Your task to perform on an android device: Open Chrome and go to settings Image 0: 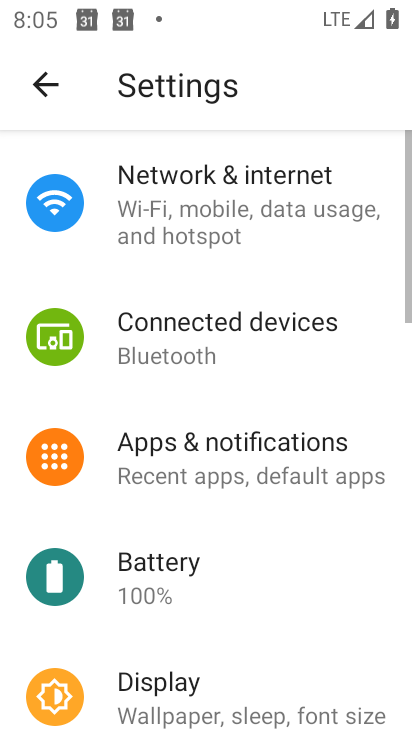
Step 0: press home button
Your task to perform on an android device: Open Chrome and go to settings Image 1: 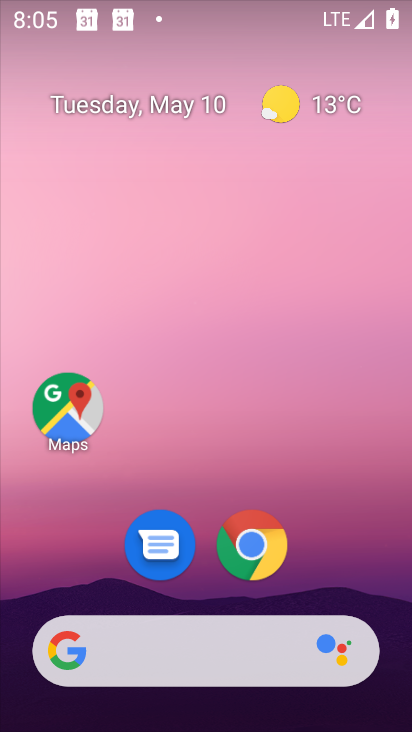
Step 1: click (251, 537)
Your task to perform on an android device: Open Chrome and go to settings Image 2: 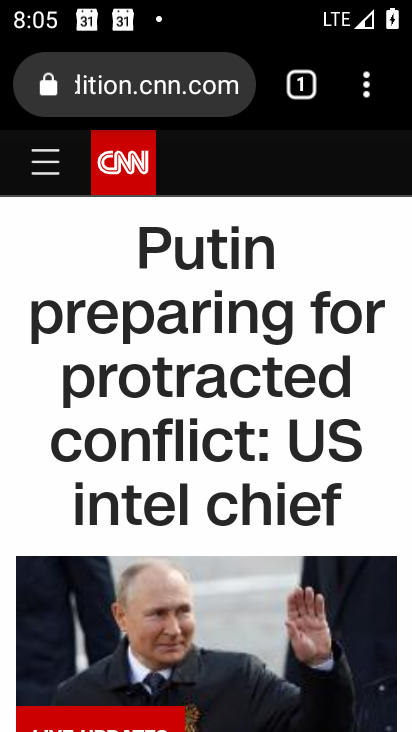
Step 2: click (371, 75)
Your task to perform on an android device: Open Chrome and go to settings Image 3: 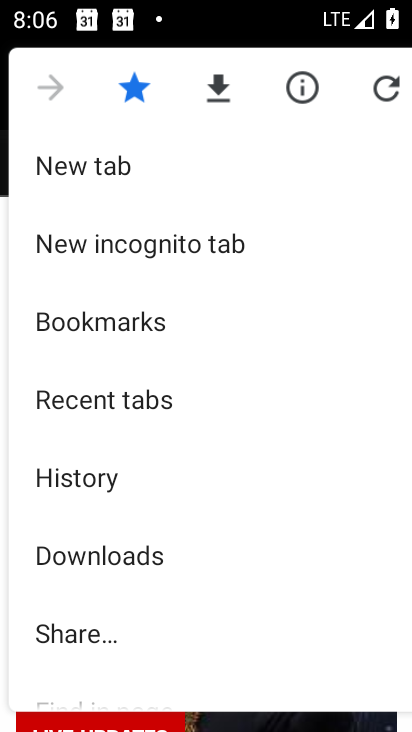
Step 3: drag from (219, 635) to (243, 122)
Your task to perform on an android device: Open Chrome and go to settings Image 4: 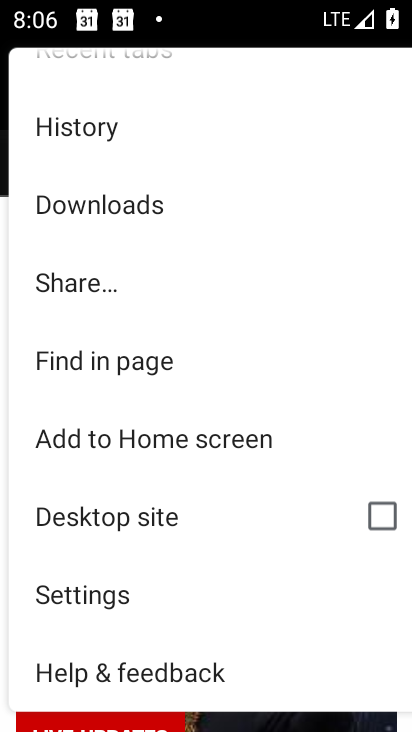
Step 4: click (137, 591)
Your task to perform on an android device: Open Chrome and go to settings Image 5: 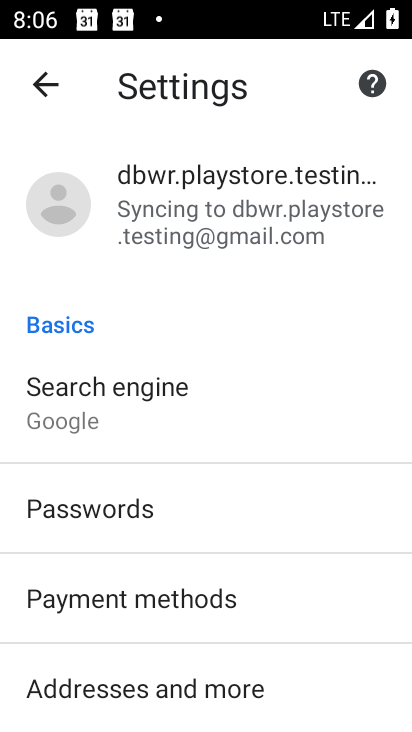
Step 5: task complete